Your task to perform on an android device: check out phone information Image 0: 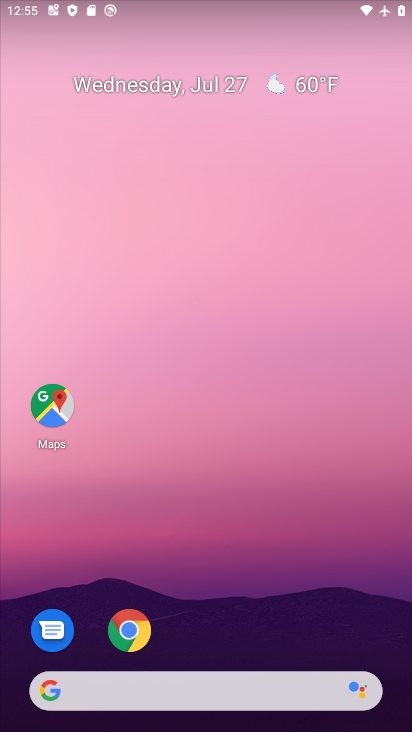
Step 0: press home button
Your task to perform on an android device: check out phone information Image 1: 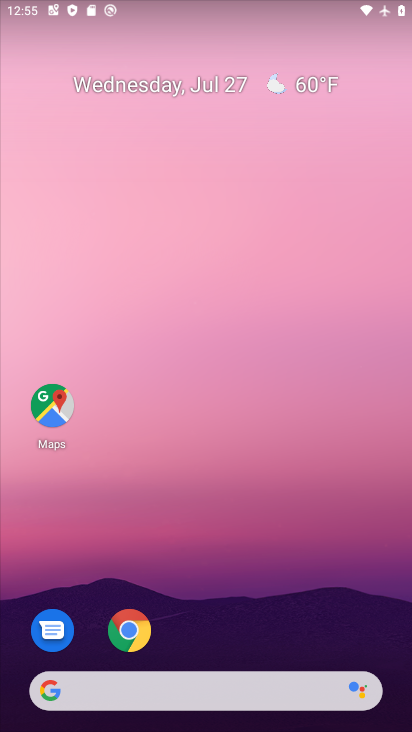
Step 1: press home button
Your task to perform on an android device: check out phone information Image 2: 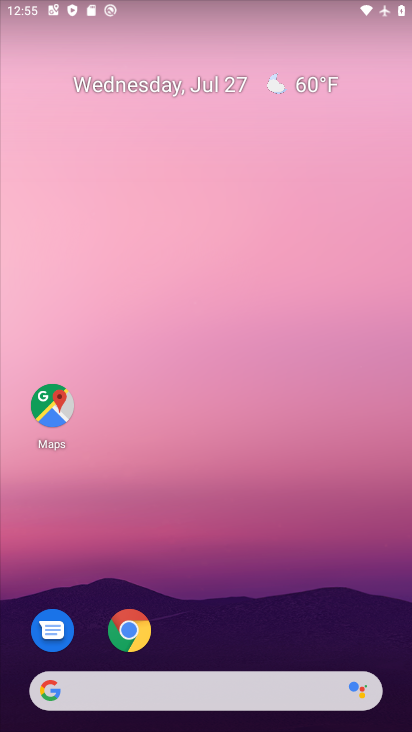
Step 2: drag from (263, 632) to (288, 40)
Your task to perform on an android device: check out phone information Image 3: 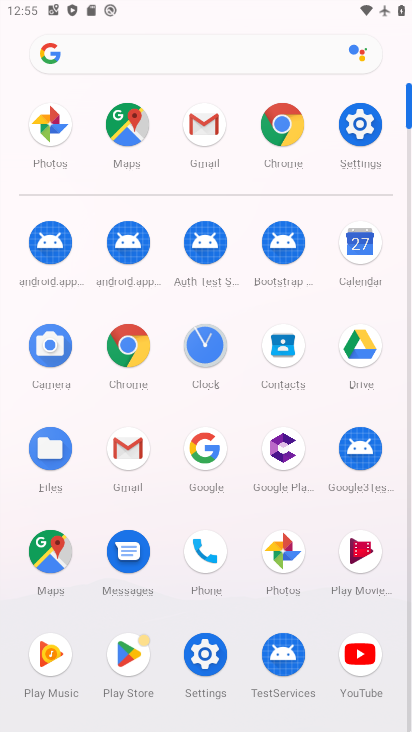
Step 3: click (364, 118)
Your task to perform on an android device: check out phone information Image 4: 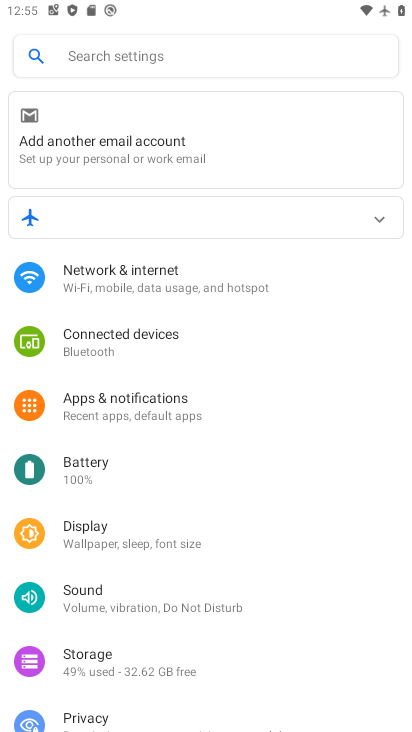
Step 4: drag from (303, 677) to (355, 28)
Your task to perform on an android device: check out phone information Image 5: 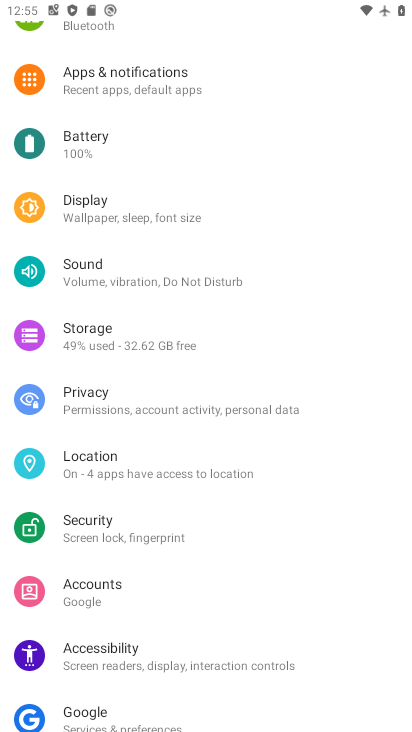
Step 5: drag from (267, 686) to (183, 5)
Your task to perform on an android device: check out phone information Image 6: 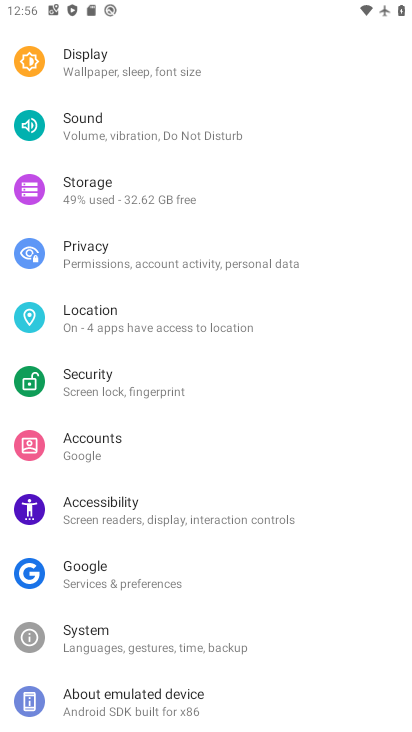
Step 6: click (114, 715)
Your task to perform on an android device: check out phone information Image 7: 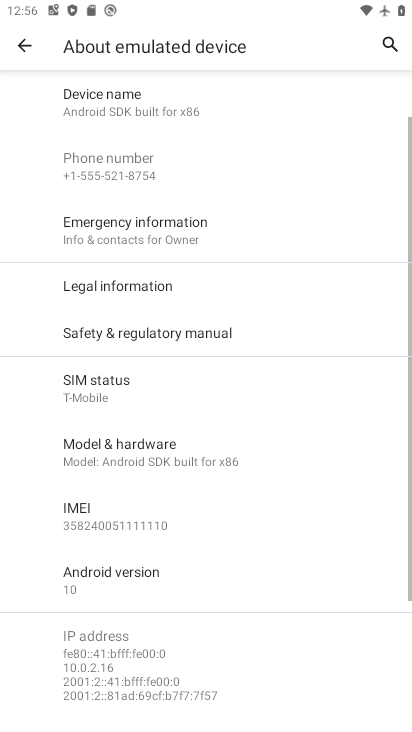
Step 7: task complete